Your task to perform on an android device: turn off notifications in google photos Image 0: 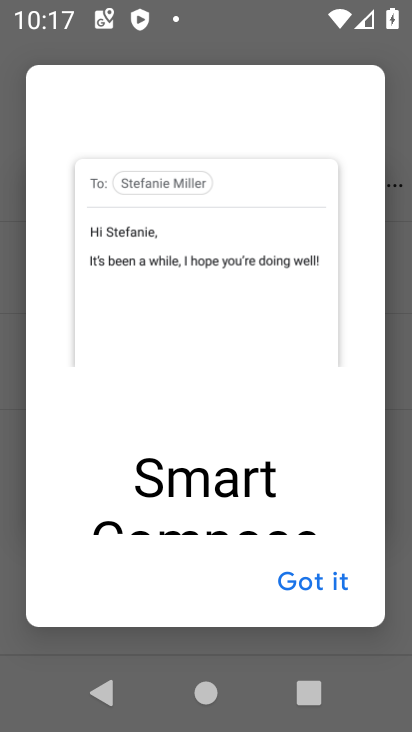
Step 0: press home button
Your task to perform on an android device: turn off notifications in google photos Image 1: 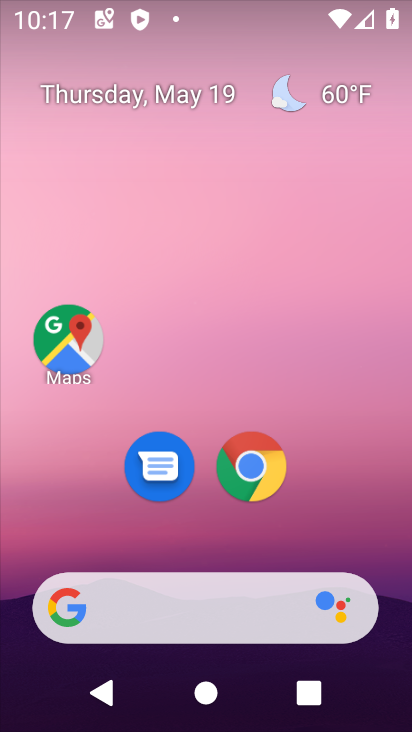
Step 1: drag from (297, 511) to (290, 182)
Your task to perform on an android device: turn off notifications in google photos Image 2: 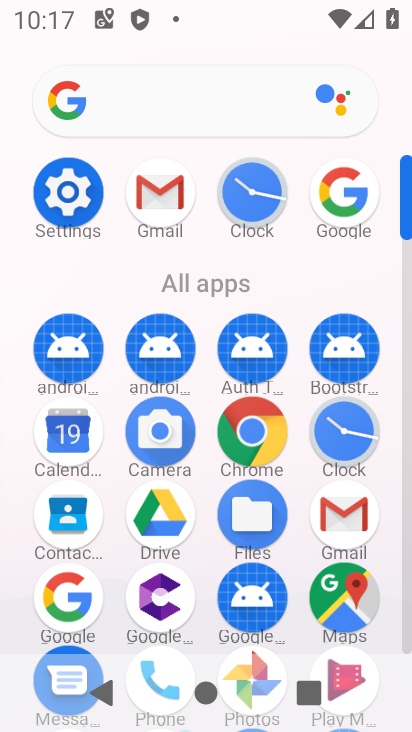
Step 2: drag from (181, 612) to (192, 262)
Your task to perform on an android device: turn off notifications in google photos Image 3: 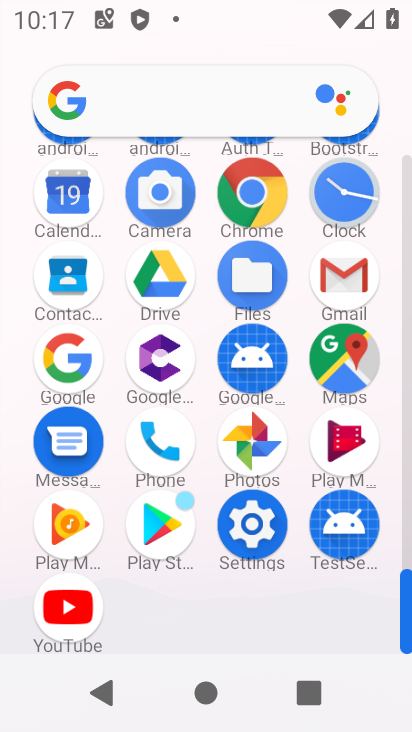
Step 3: click (259, 459)
Your task to perform on an android device: turn off notifications in google photos Image 4: 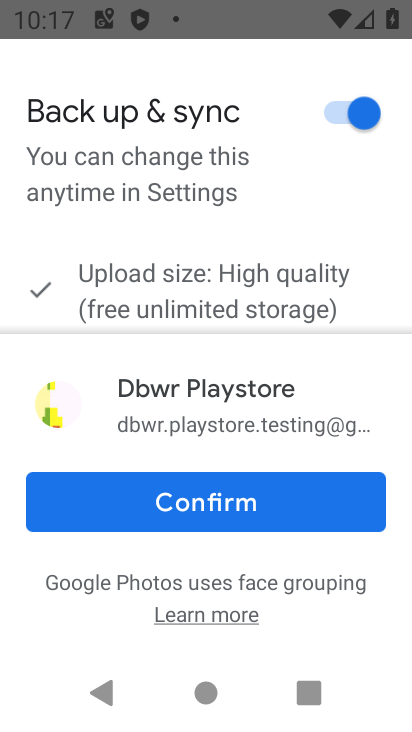
Step 4: click (259, 515)
Your task to perform on an android device: turn off notifications in google photos Image 5: 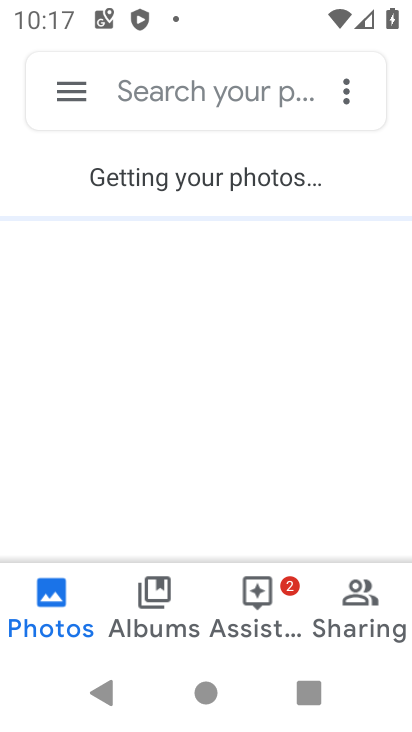
Step 5: click (69, 103)
Your task to perform on an android device: turn off notifications in google photos Image 6: 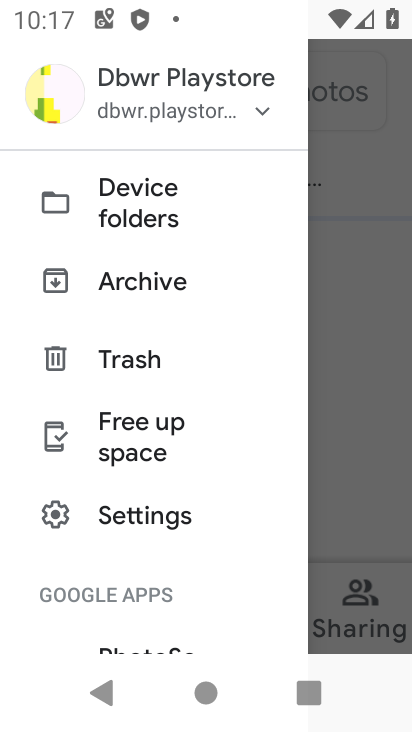
Step 6: click (160, 518)
Your task to perform on an android device: turn off notifications in google photos Image 7: 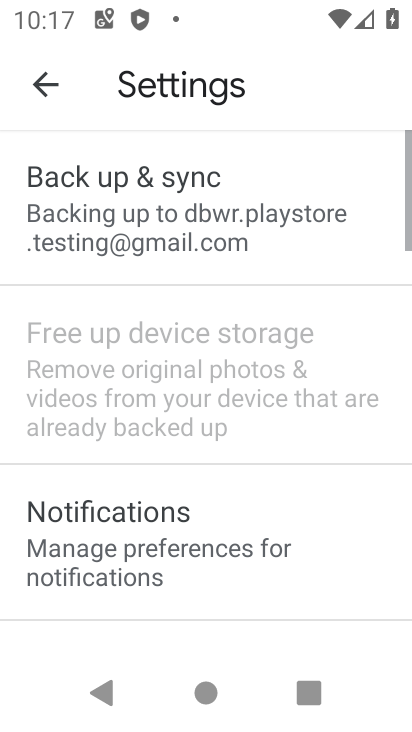
Step 7: click (160, 518)
Your task to perform on an android device: turn off notifications in google photos Image 8: 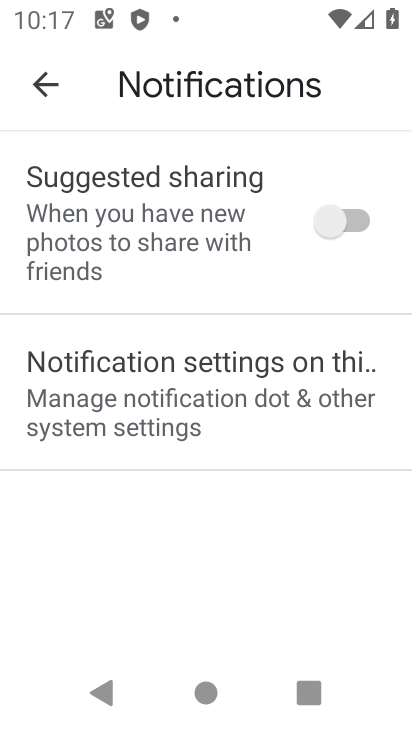
Step 8: click (193, 429)
Your task to perform on an android device: turn off notifications in google photos Image 9: 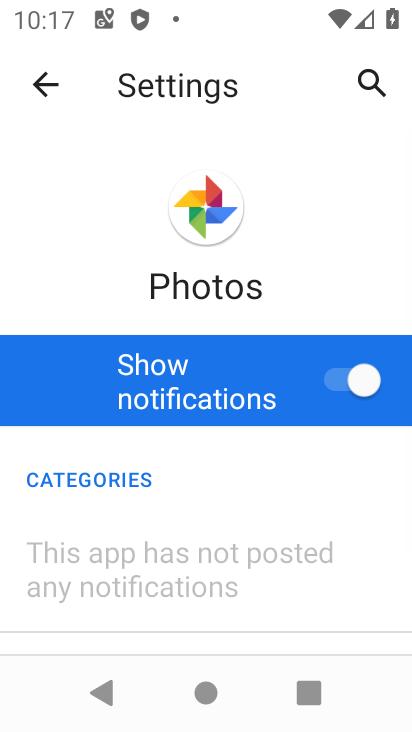
Step 9: click (351, 380)
Your task to perform on an android device: turn off notifications in google photos Image 10: 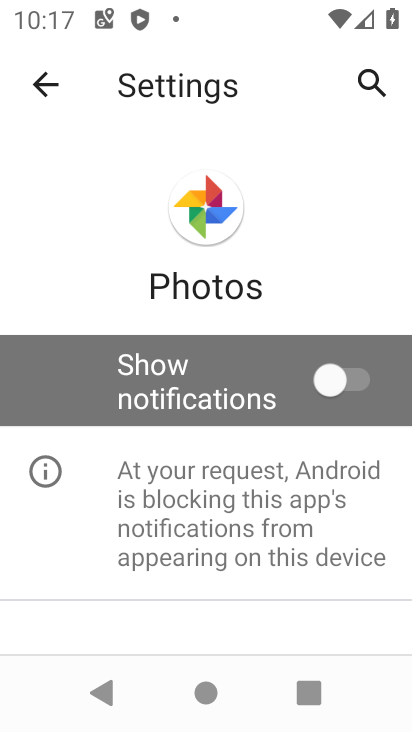
Step 10: task complete